Your task to perform on an android device: set an alarm Image 0: 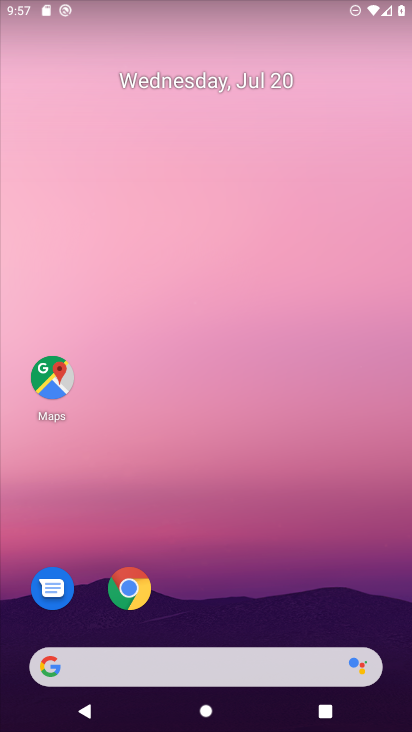
Step 0: drag from (191, 372) to (184, 169)
Your task to perform on an android device: set an alarm Image 1: 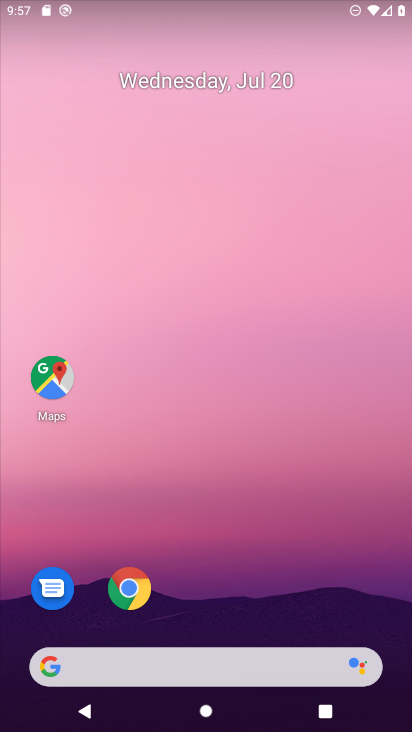
Step 1: drag from (230, 576) to (215, 164)
Your task to perform on an android device: set an alarm Image 2: 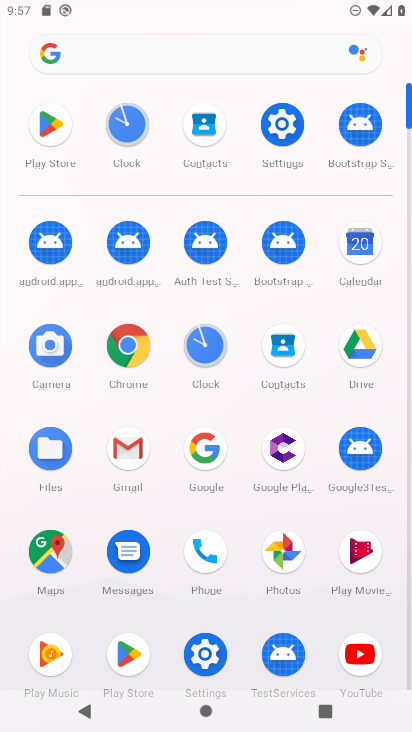
Step 2: click (131, 147)
Your task to perform on an android device: set an alarm Image 3: 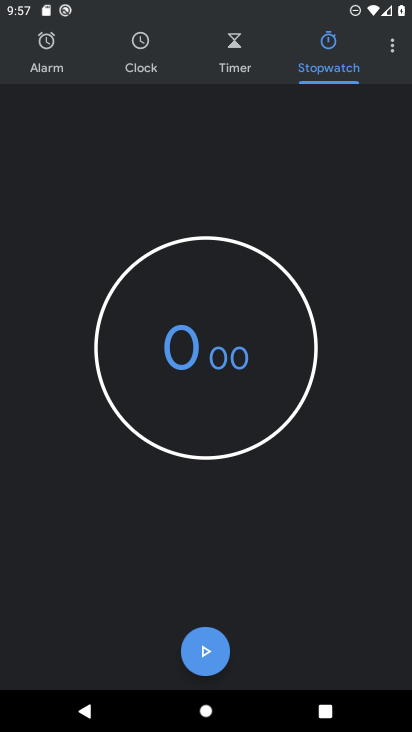
Step 3: click (55, 57)
Your task to perform on an android device: set an alarm Image 4: 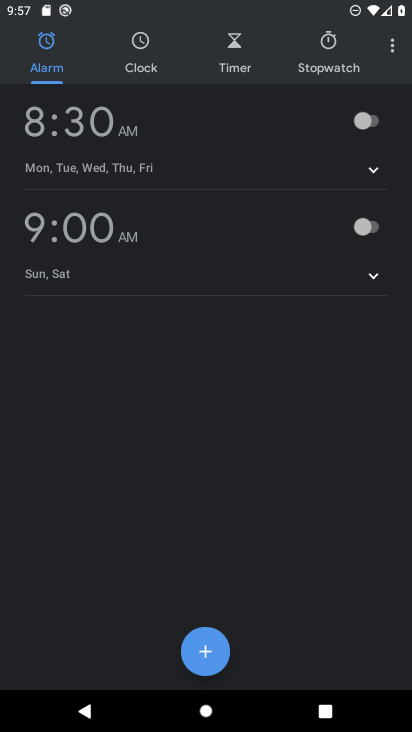
Step 4: click (375, 133)
Your task to perform on an android device: set an alarm Image 5: 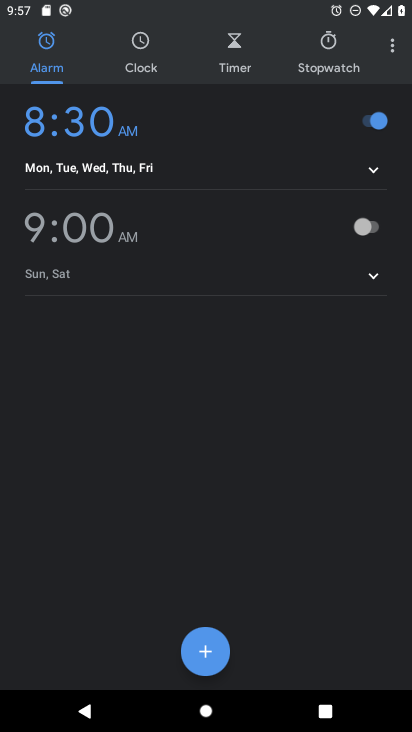
Step 5: task complete